Your task to perform on an android device: Open Google Image 0: 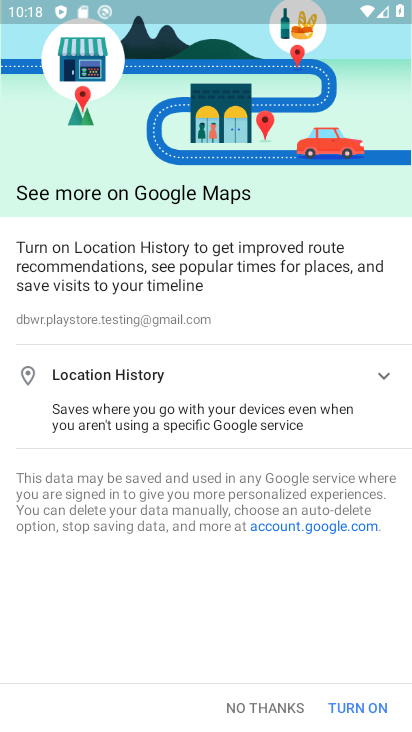
Step 0: click (278, 708)
Your task to perform on an android device: Open Google Image 1: 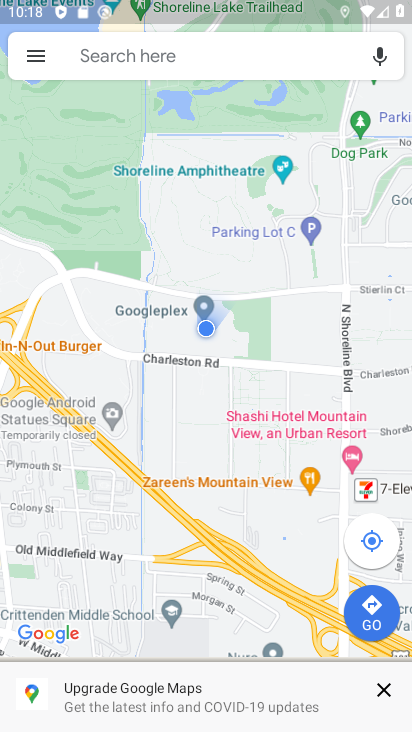
Step 1: press home button
Your task to perform on an android device: Open Google Image 2: 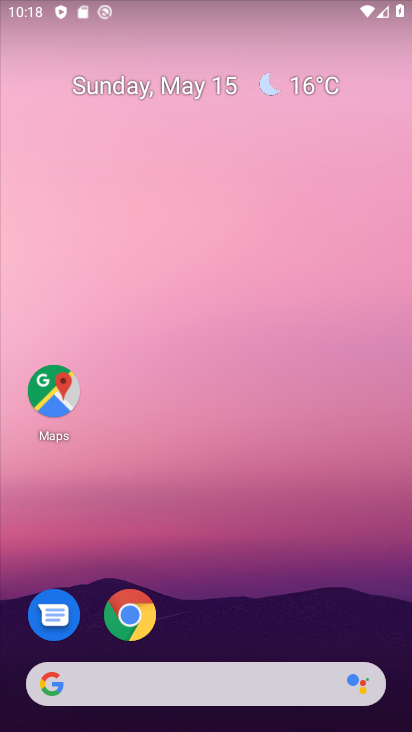
Step 2: drag from (204, 681) to (345, 94)
Your task to perform on an android device: Open Google Image 3: 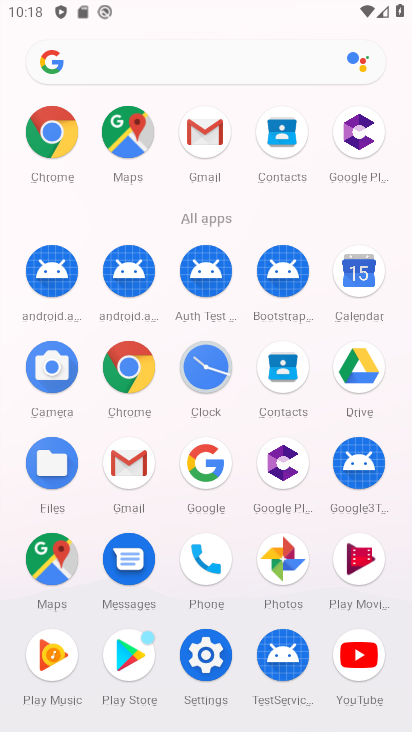
Step 3: click (204, 467)
Your task to perform on an android device: Open Google Image 4: 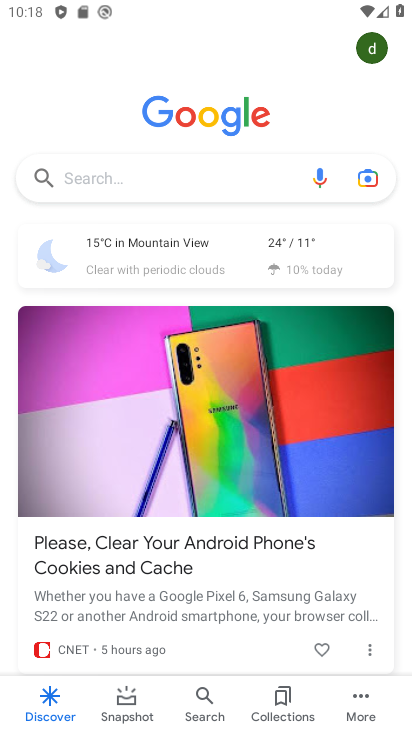
Step 4: task complete